Your task to perform on an android device: Go to network settings Image 0: 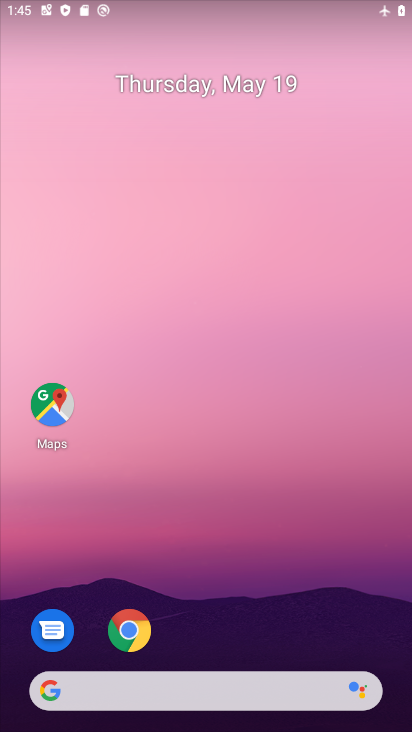
Step 0: drag from (175, 669) to (202, 4)
Your task to perform on an android device: Go to network settings Image 1: 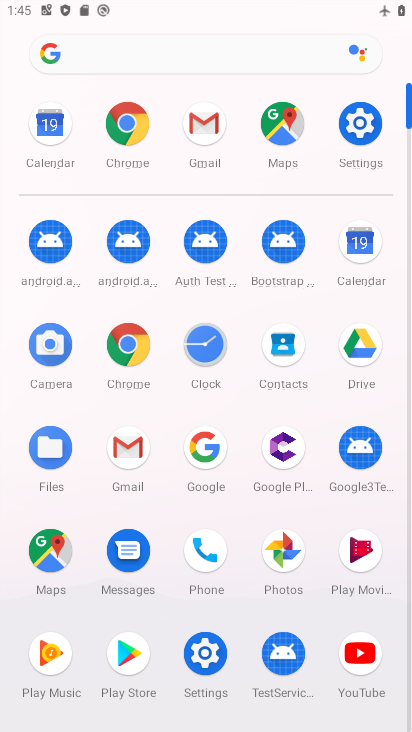
Step 1: click (352, 124)
Your task to perform on an android device: Go to network settings Image 2: 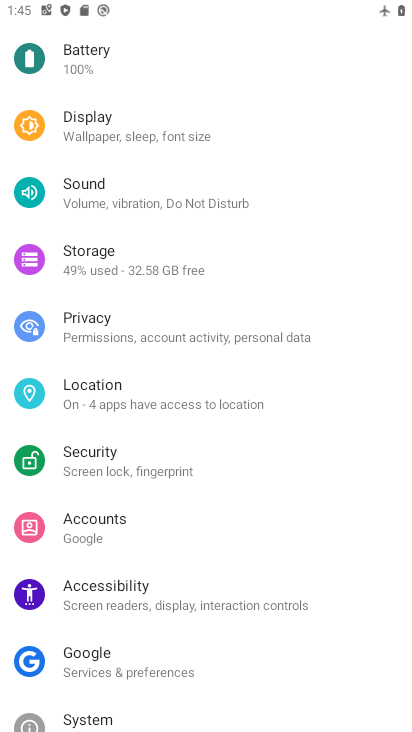
Step 2: drag from (197, 132) to (189, 512)
Your task to perform on an android device: Go to network settings Image 3: 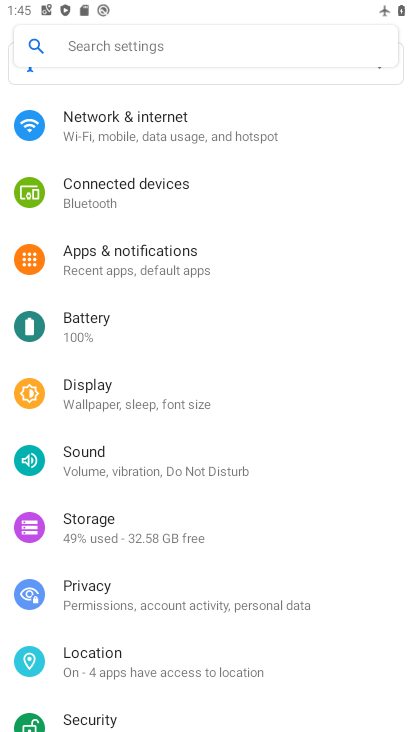
Step 3: click (126, 140)
Your task to perform on an android device: Go to network settings Image 4: 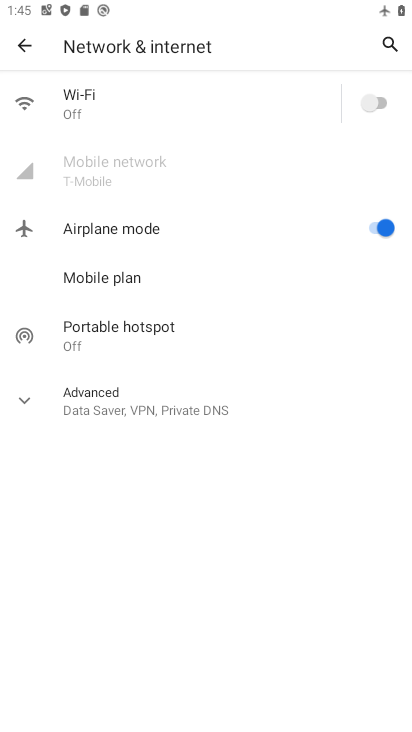
Step 4: task complete